Your task to perform on an android device: Open the Play Movies app and select the watchlist tab. Image 0: 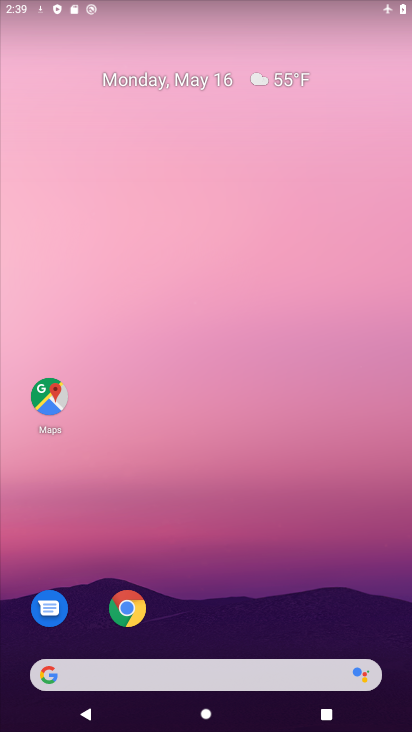
Step 0: drag from (203, 595) to (188, 183)
Your task to perform on an android device: Open the Play Movies app and select the watchlist tab. Image 1: 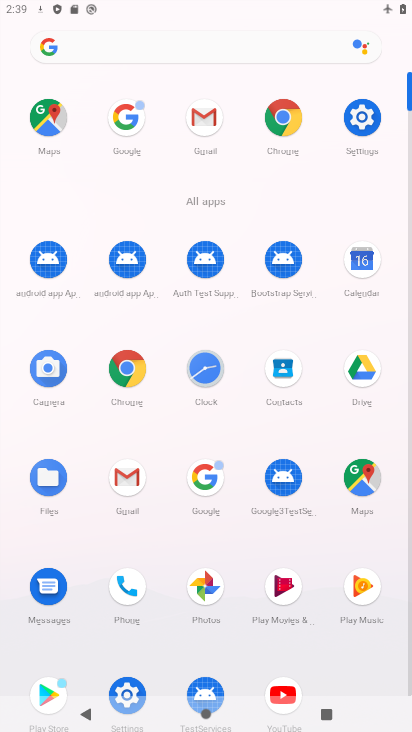
Step 1: click (285, 588)
Your task to perform on an android device: Open the Play Movies app and select the watchlist tab. Image 2: 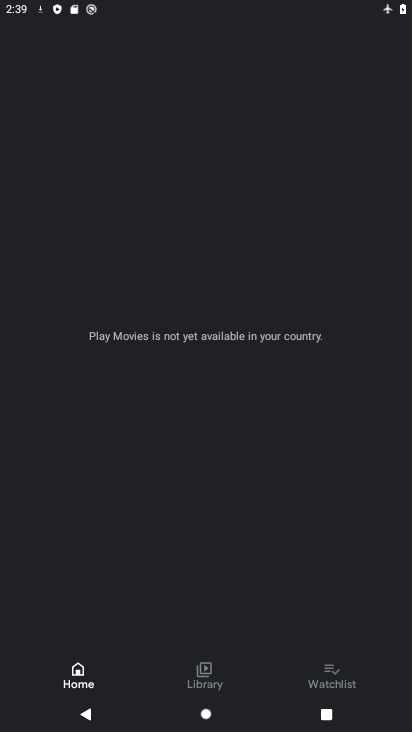
Step 2: click (328, 664)
Your task to perform on an android device: Open the Play Movies app and select the watchlist tab. Image 3: 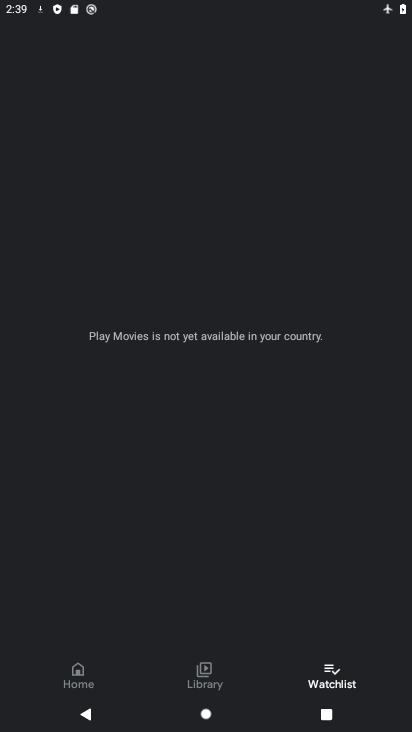
Step 3: task complete